Your task to perform on an android device: clear history in the chrome app Image 0: 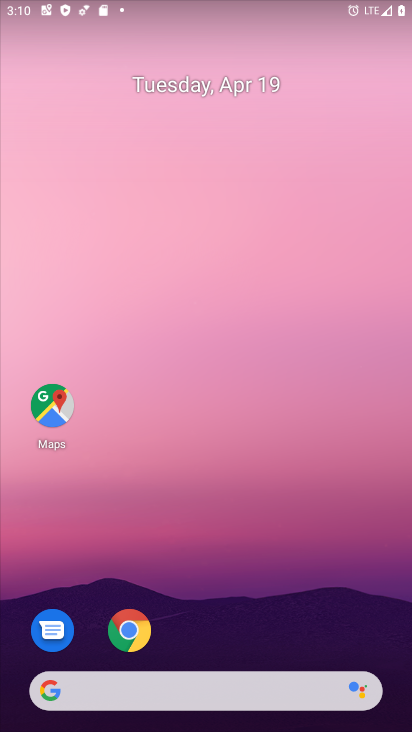
Step 0: click (132, 631)
Your task to perform on an android device: clear history in the chrome app Image 1: 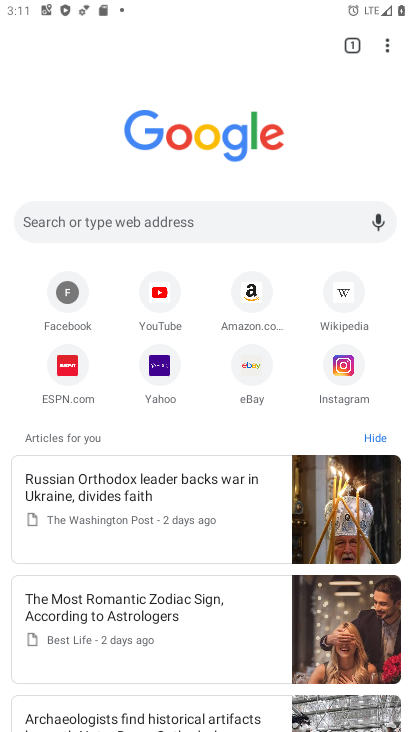
Step 1: click (389, 44)
Your task to perform on an android device: clear history in the chrome app Image 2: 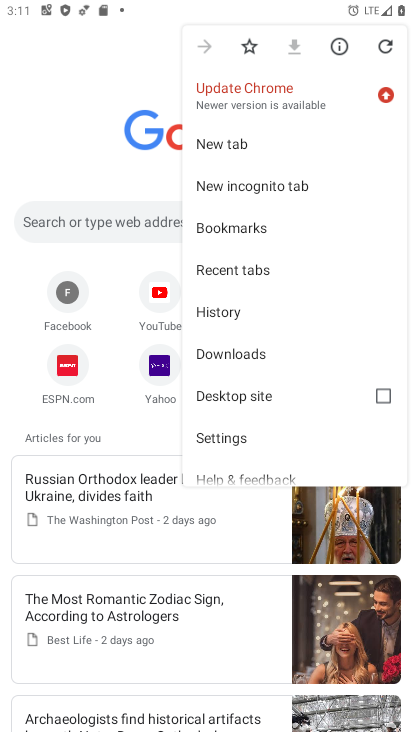
Step 2: click (227, 311)
Your task to perform on an android device: clear history in the chrome app Image 3: 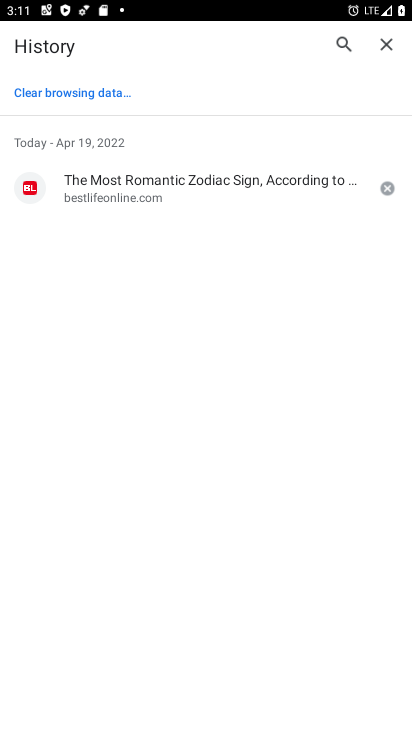
Step 3: click (77, 92)
Your task to perform on an android device: clear history in the chrome app Image 4: 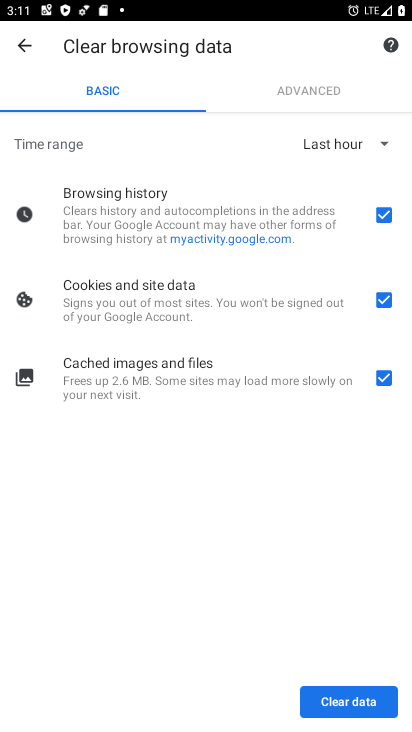
Step 4: click (348, 702)
Your task to perform on an android device: clear history in the chrome app Image 5: 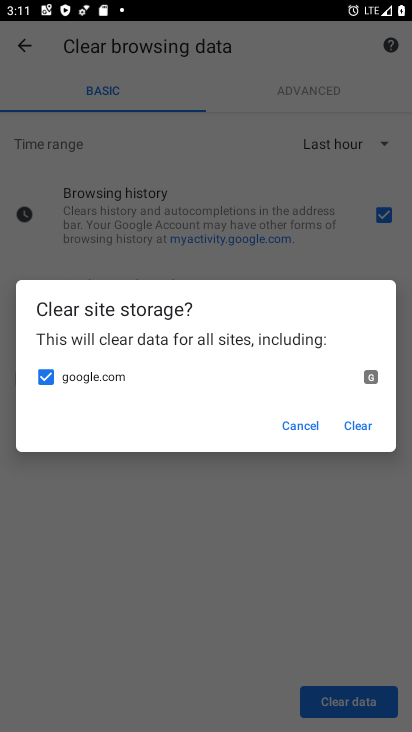
Step 5: click (360, 426)
Your task to perform on an android device: clear history in the chrome app Image 6: 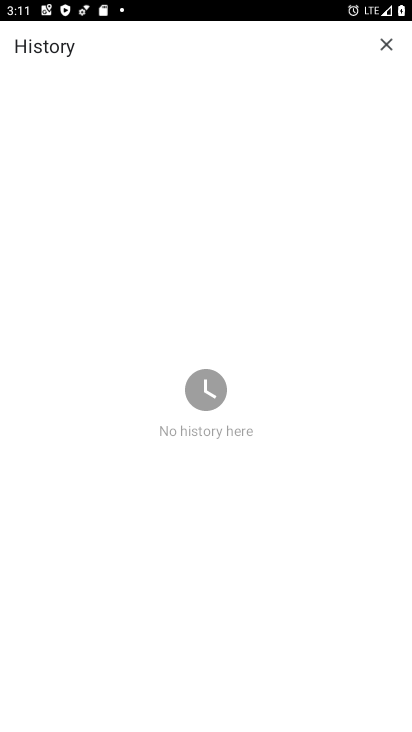
Step 6: task complete